Your task to perform on an android device: Turn on the flashlight Image 0: 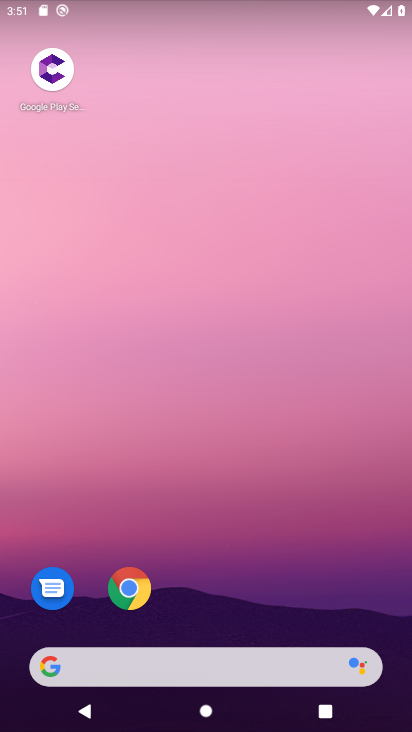
Step 0: drag from (227, 624) to (399, 1)
Your task to perform on an android device: Turn on the flashlight Image 1: 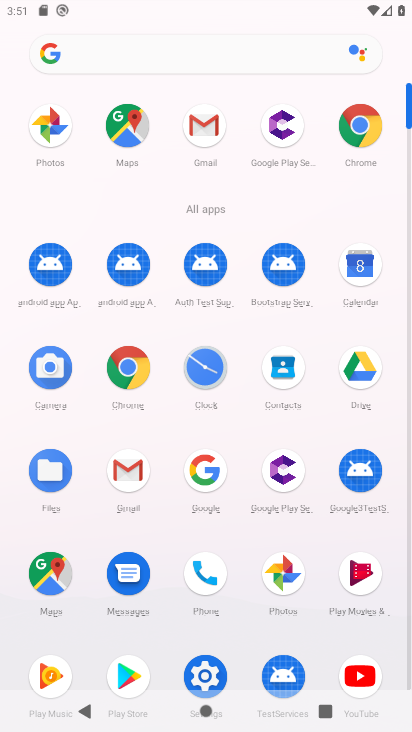
Step 1: click (203, 663)
Your task to perform on an android device: Turn on the flashlight Image 2: 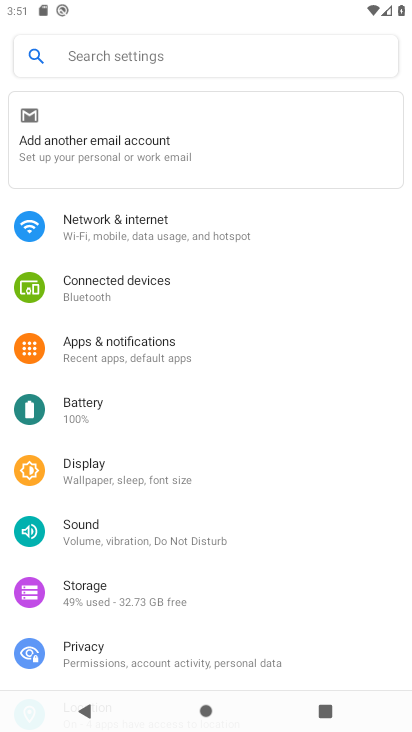
Step 2: click (201, 55)
Your task to perform on an android device: Turn on the flashlight Image 3: 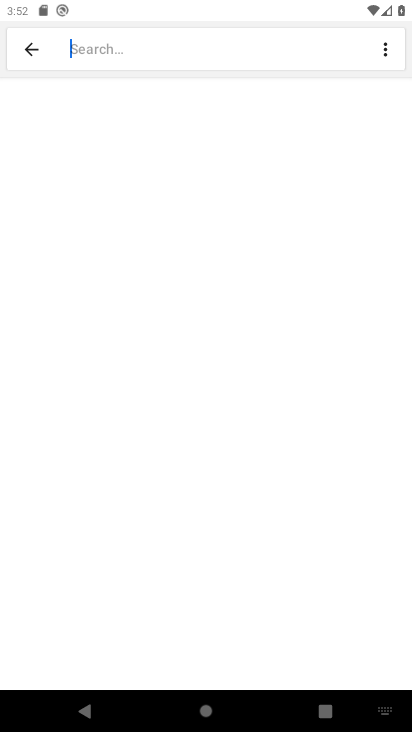
Step 3: type "flashlight"
Your task to perform on an android device: Turn on the flashlight Image 4: 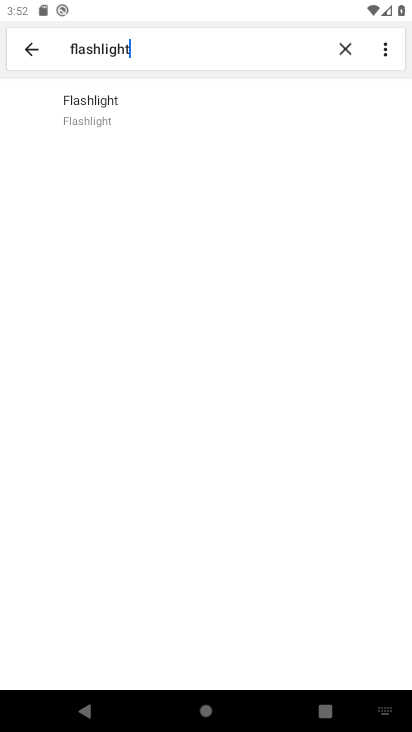
Step 4: task complete